Your task to perform on an android device: turn vacation reply on in the gmail app Image 0: 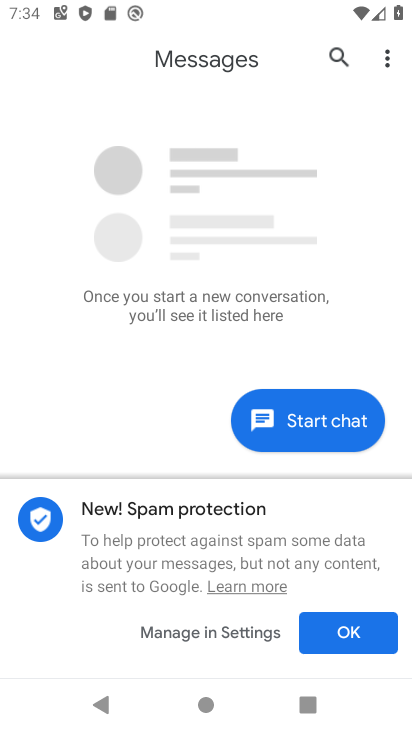
Step 0: press home button
Your task to perform on an android device: turn vacation reply on in the gmail app Image 1: 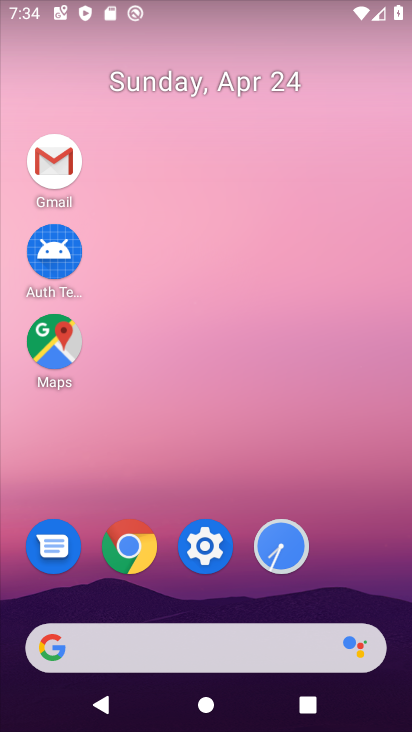
Step 1: click (52, 155)
Your task to perform on an android device: turn vacation reply on in the gmail app Image 2: 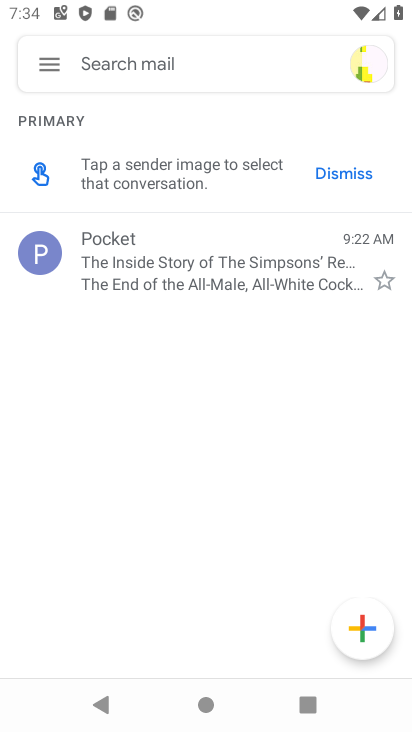
Step 2: click (51, 63)
Your task to perform on an android device: turn vacation reply on in the gmail app Image 3: 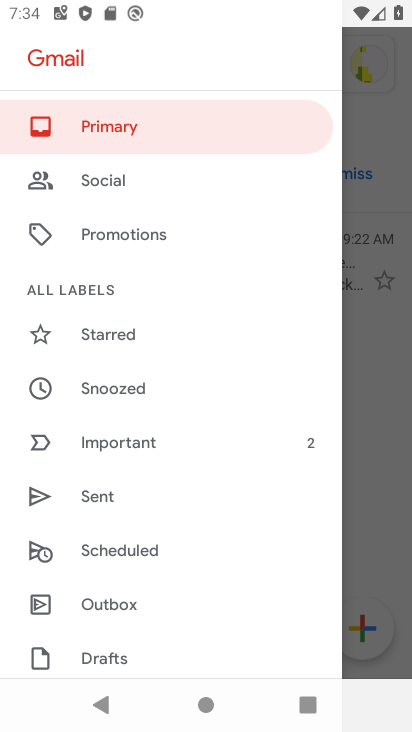
Step 3: drag from (207, 590) to (177, 252)
Your task to perform on an android device: turn vacation reply on in the gmail app Image 4: 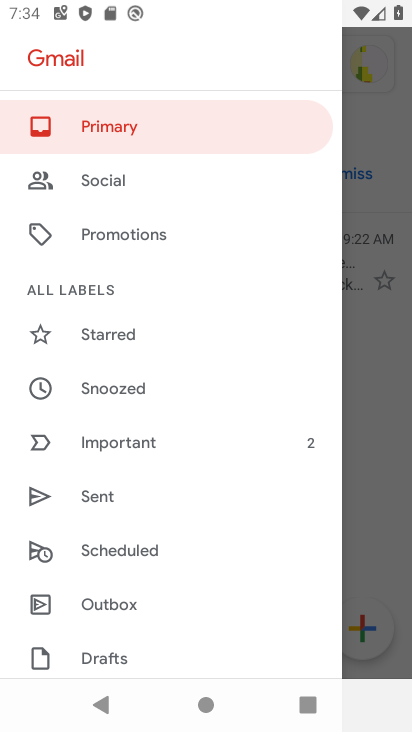
Step 4: drag from (189, 633) to (209, 169)
Your task to perform on an android device: turn vacation reply on in the gmail app Image 5: 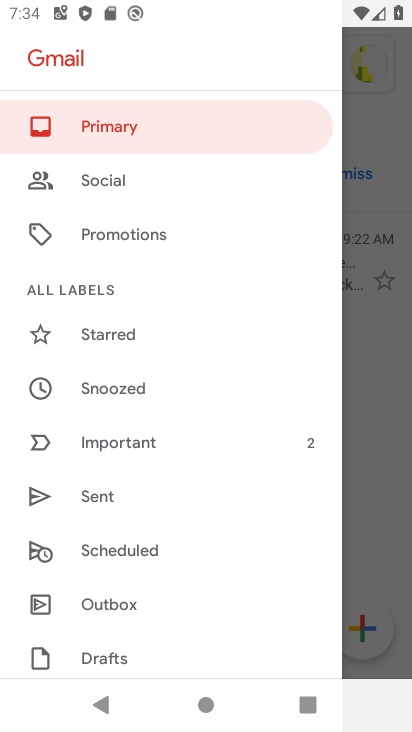
Step 5: drag from (251, 570) to (245, 165)
Your task to perform on an android device: turn vacation reply on in the gmail app Image 6: 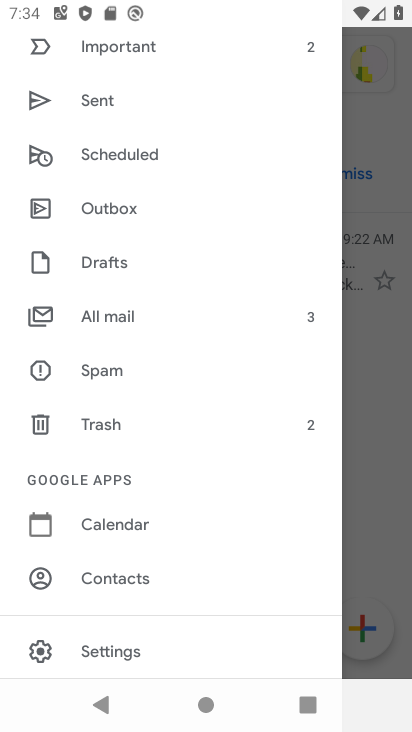
Step 6: click (121, 649)
Your task to perform on an android device: turn vacation reply on in the gmail app Image 7: 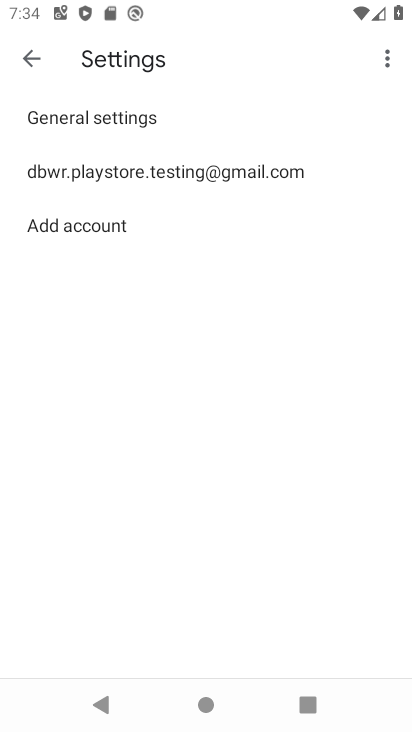
Step 7: click (68, 169)
Your task to perform on an android device: turn vacation reply on in the gmail app Image 8: 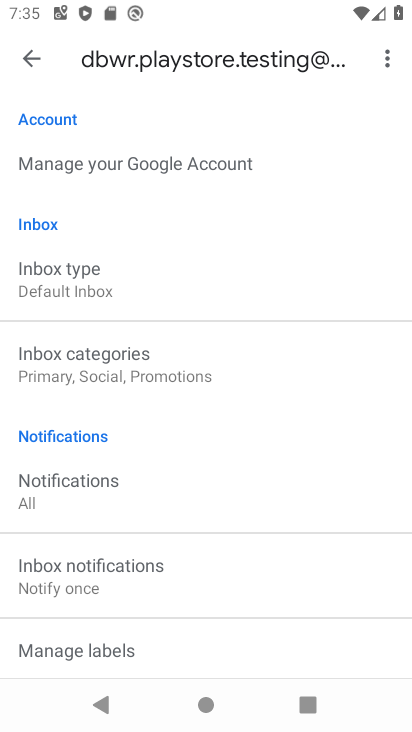
Step 8: drag from (263, 548) to (227, 146)
Your task to perform on an android device: turn vacation reply on in the gmail app Image 9: 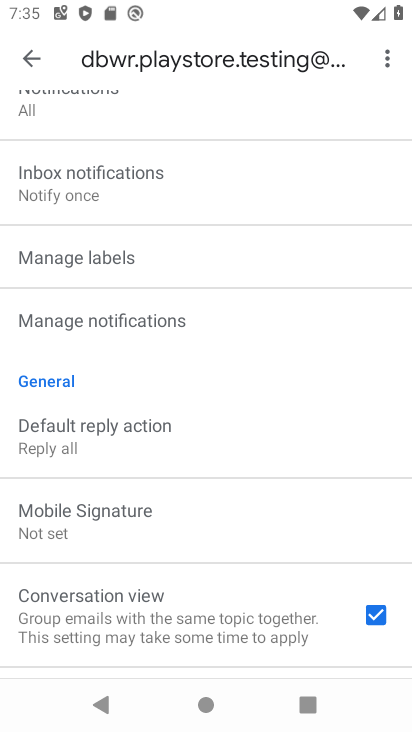
Step 9: drag from (216, 506) to (183, 6)
Your task to perform on an android device: turn vacation reply on in the gmail app Image 10: 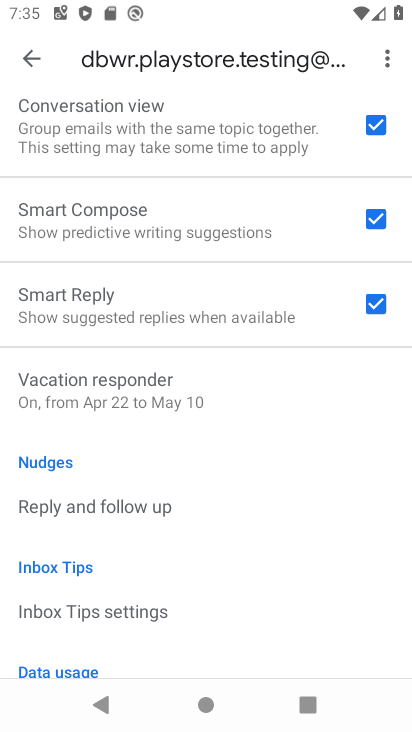
Step 10: click (99, 381)
Your task to perform on an android device: turn vacation reply on in the gmail app Image 11: 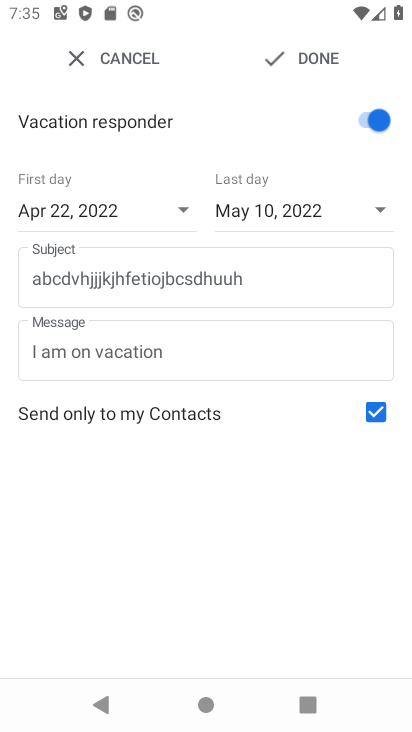
Step 11: task complete